Your task to perform on an android device: Open Google Maps Image 0: 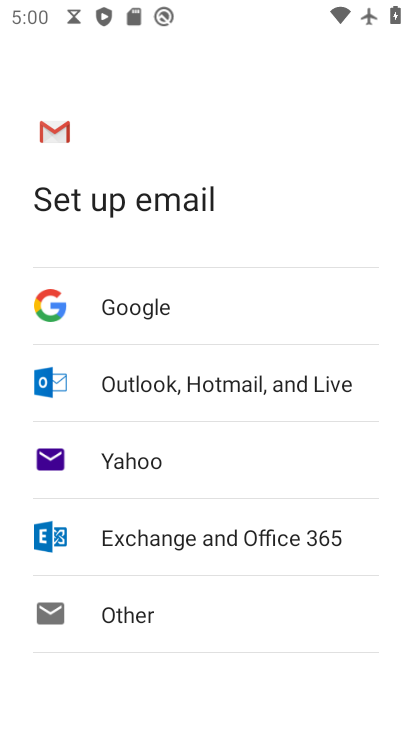
Step 0: press back button
Your task to perform on an android device: Open Google Maps Image 1: 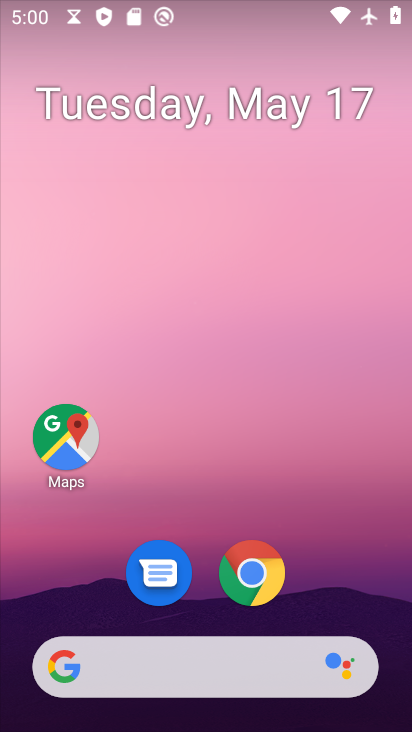
Step 1: drag from (382, 693) to (207, 213)
Your task to perform on an android device: Open Google Maps Image 2: 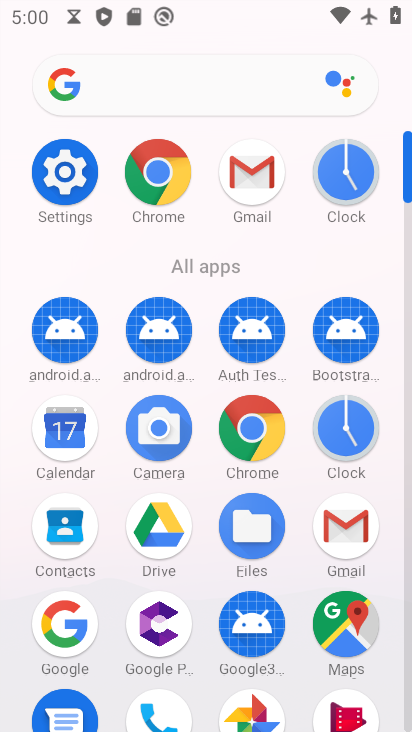
Step 2: click (350, 626)
Your task to perform on an android device: Open Google Maps Image 3: 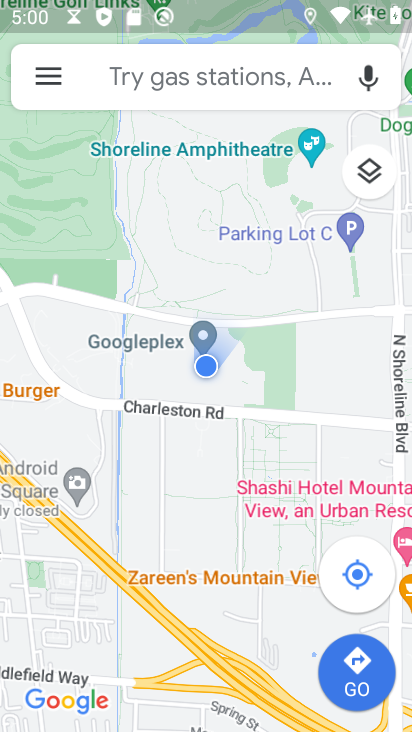
Step 3: task complete